Your task to perform on an android device: Go to Yahoo.com Image 0: 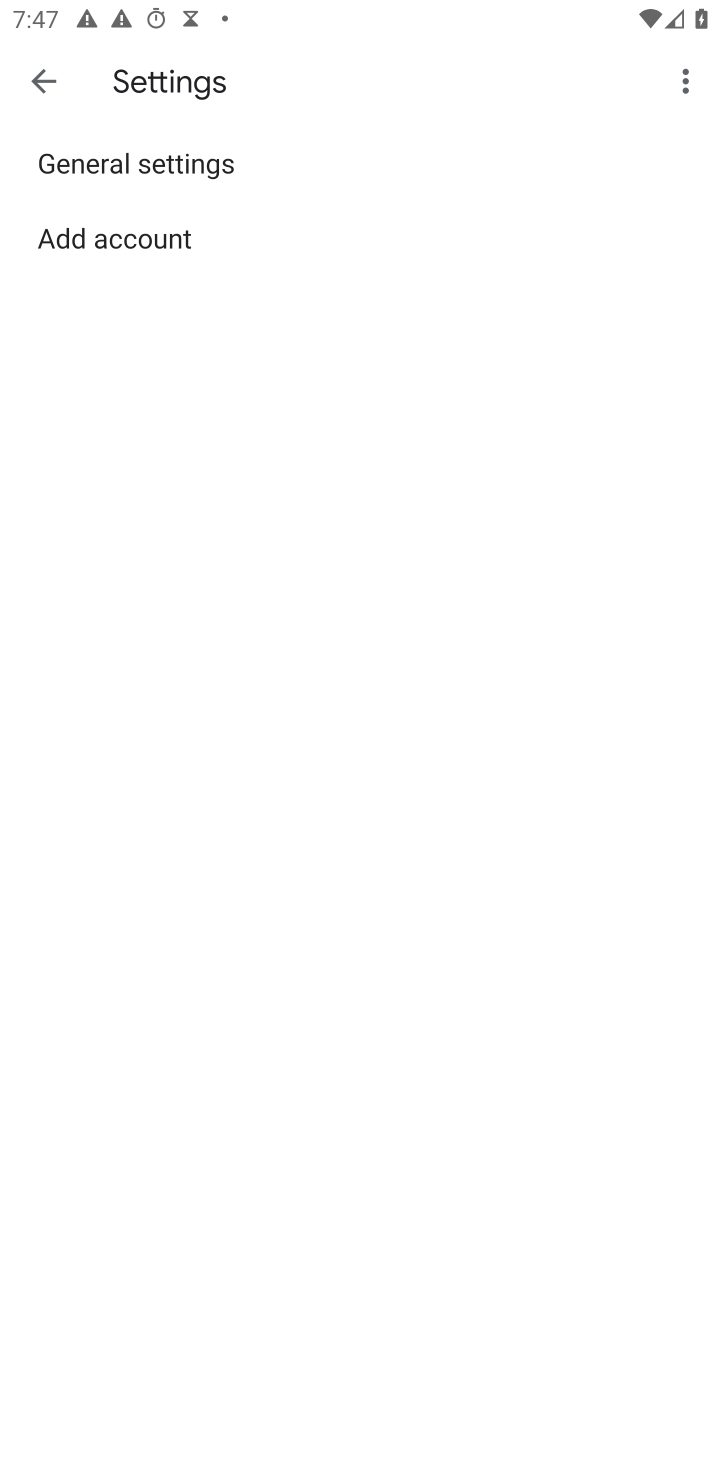
Step 0: press home button
Your task to perform on an android device: Go to Yahoo.com Image 1: 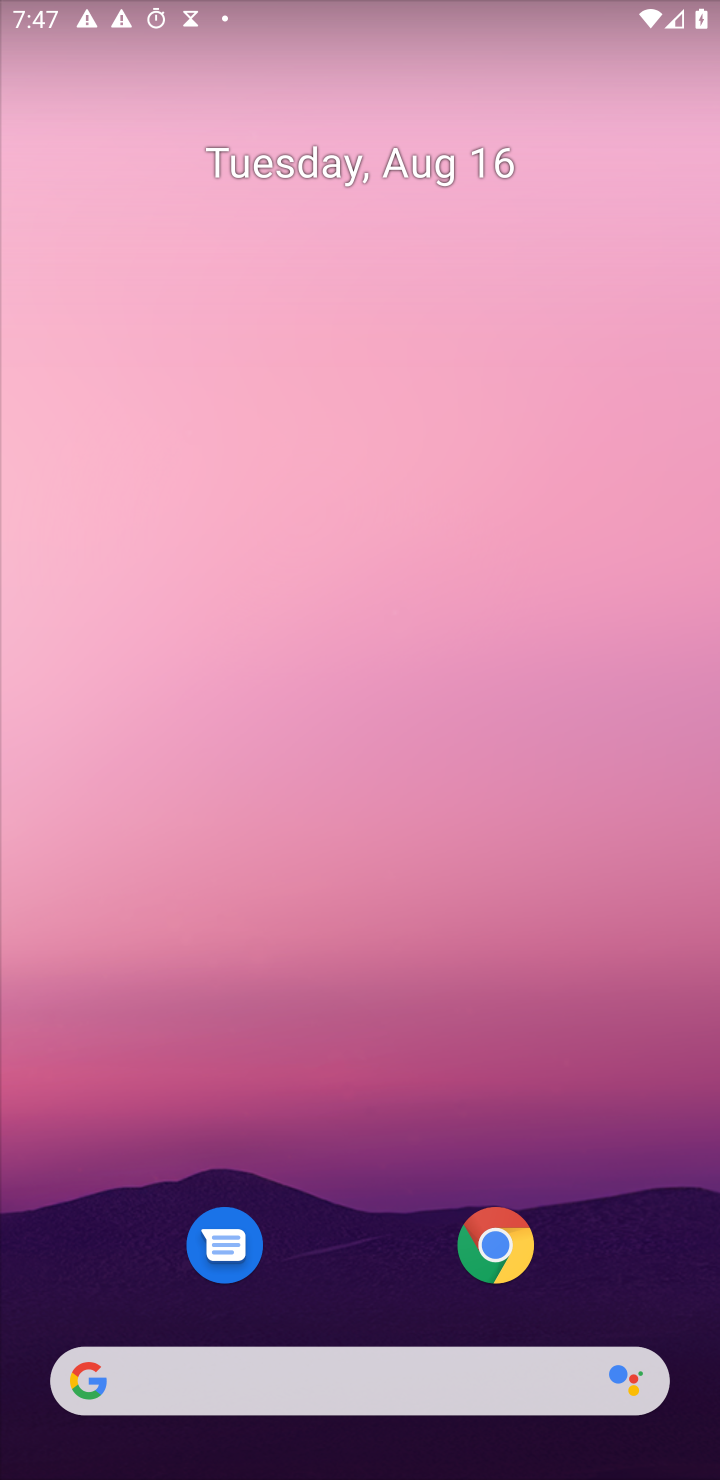
Step 1: click (88, 1381)
Your task to perform on an android device: Go to Yahoo.com Image 2: 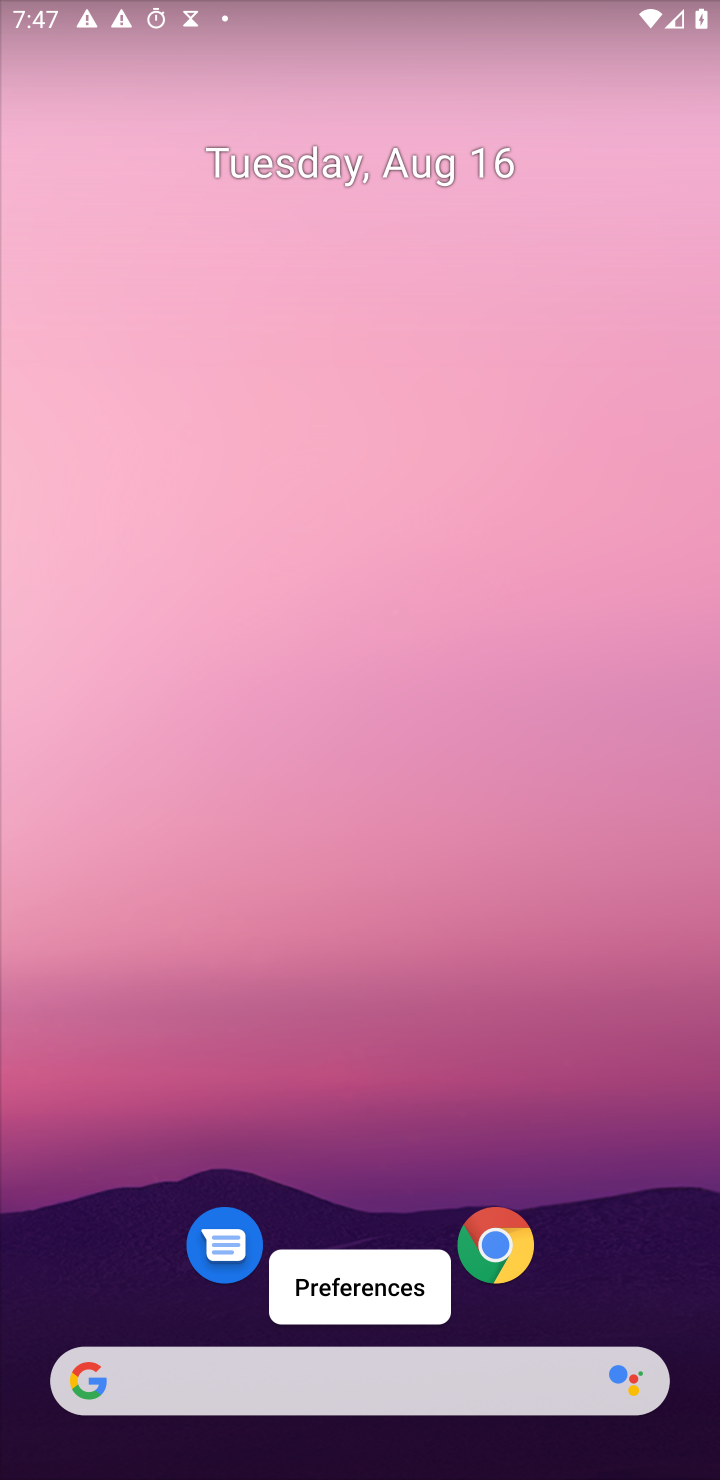
Step 2: click (81, 1378)
Your task to perform on an android device: Go to Yahoo.com Image 3: 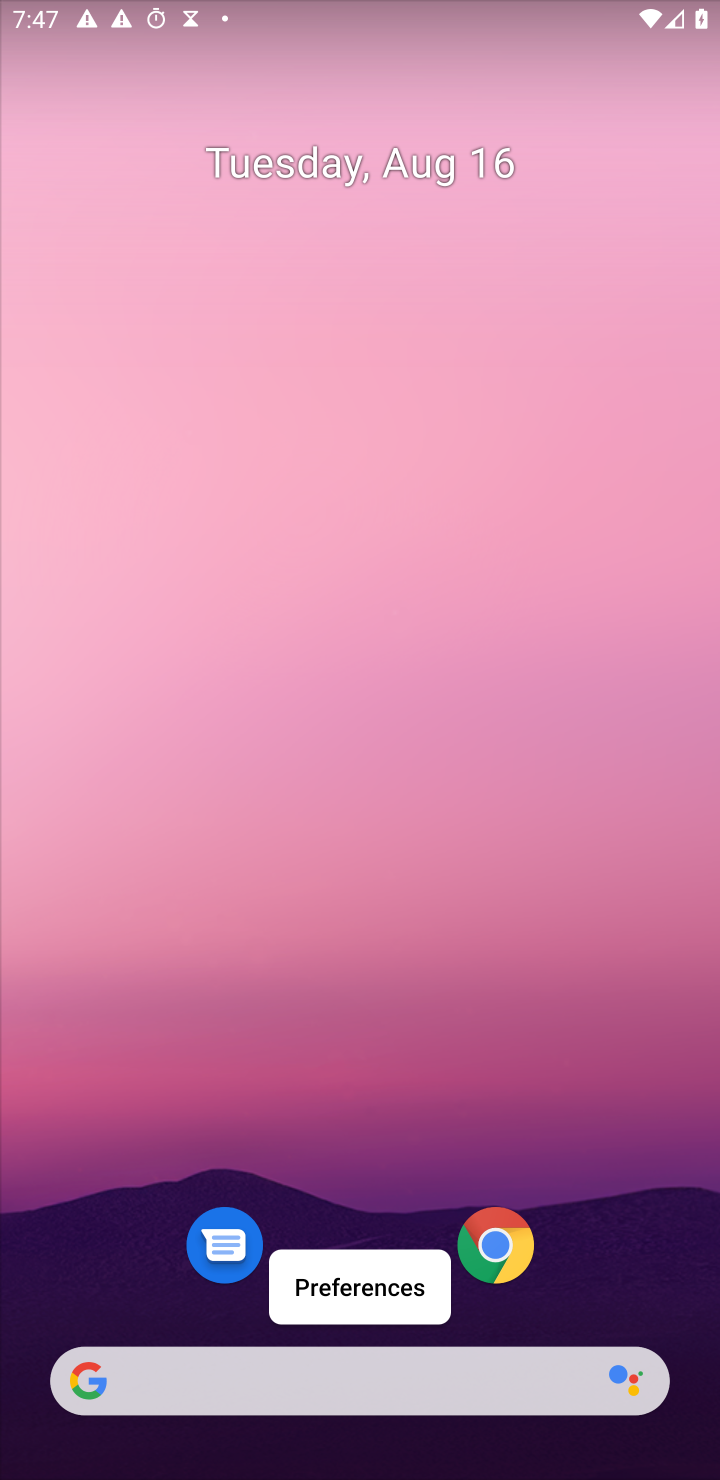
Step 3: click (85, 1390)
Your task to perform on an android device: Go to Yahoo.com Image 4: 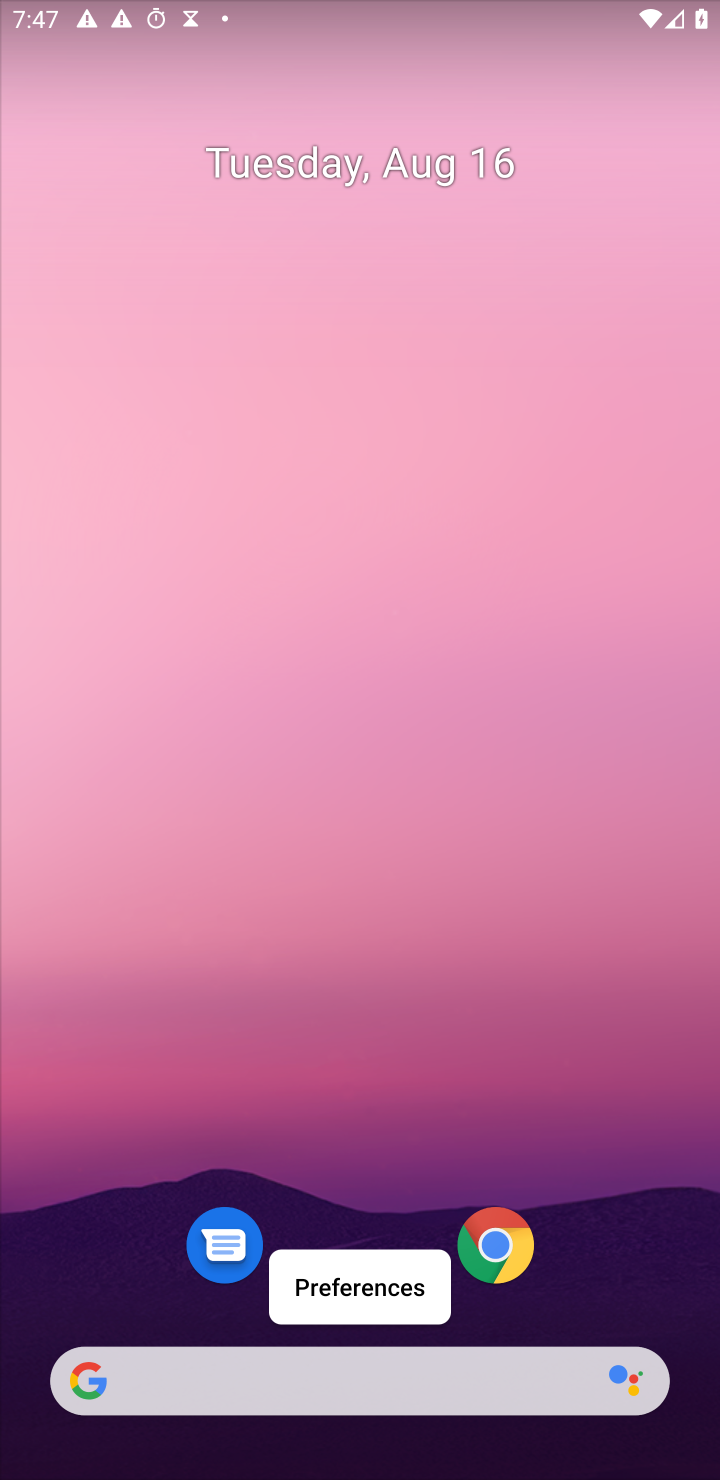
Step 4: click (85, 1388)
Your task to perform on an android device: Go to Yahoo.com Image 5: 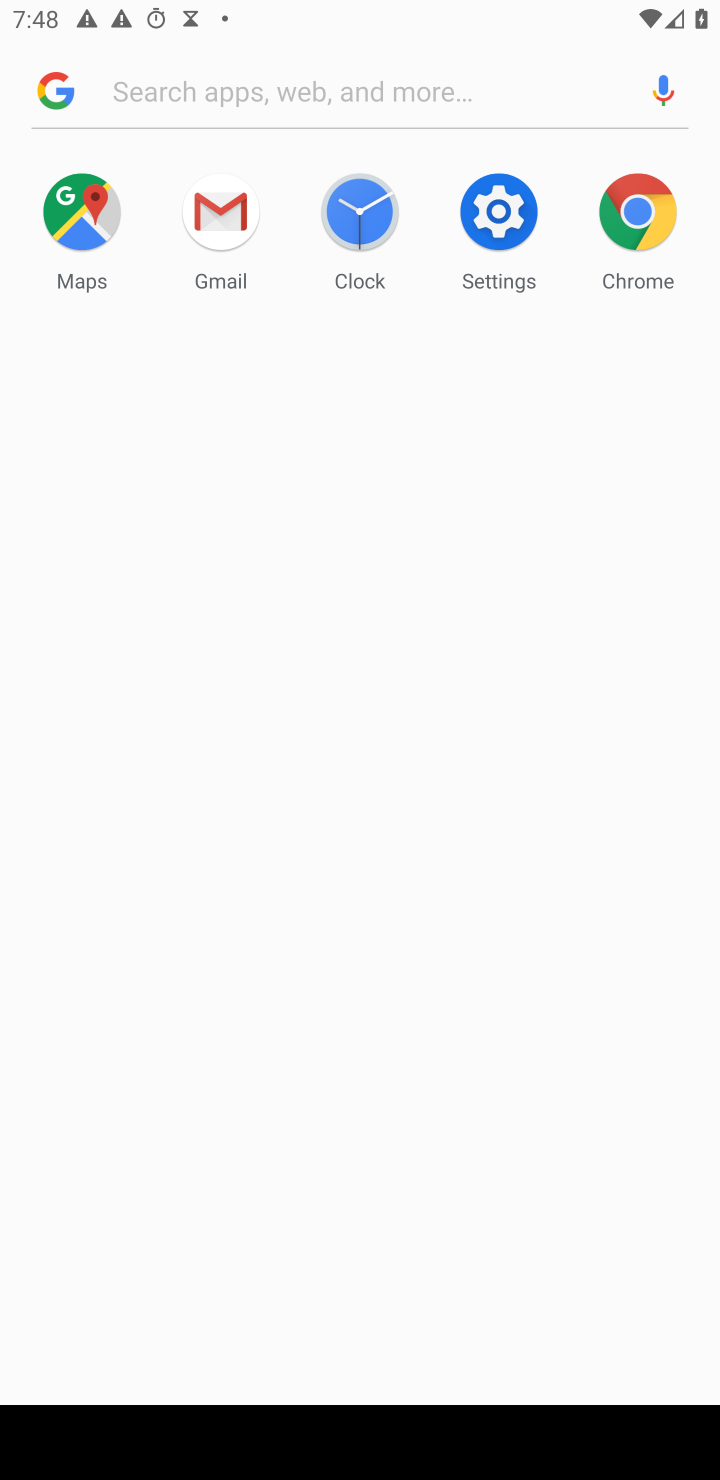
Step 5: type "Yahoo.com"
Your task to perform on an android device: Go to Yahoo.com Image 6: 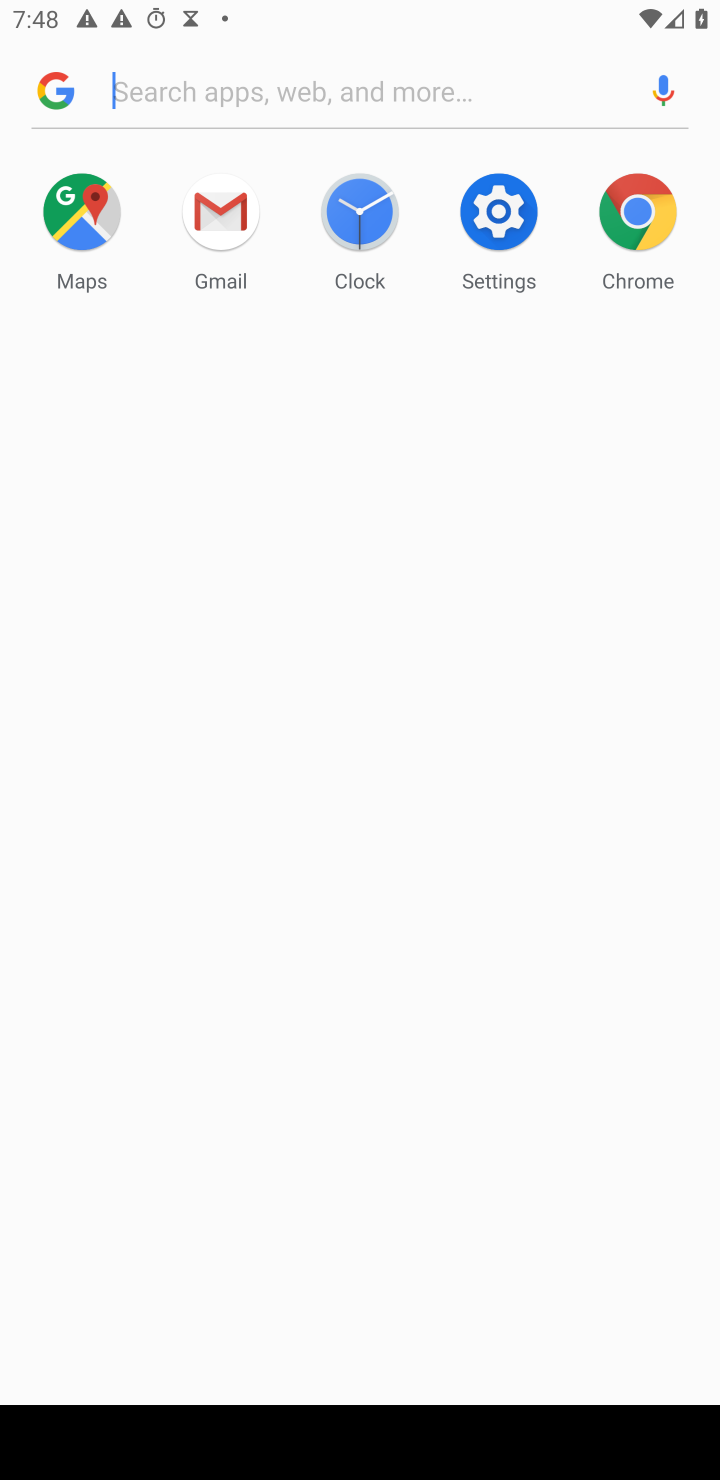
Step 6: click (139, 94)
Your task to perform on an android device: Go to Yahoo.com Image 7: 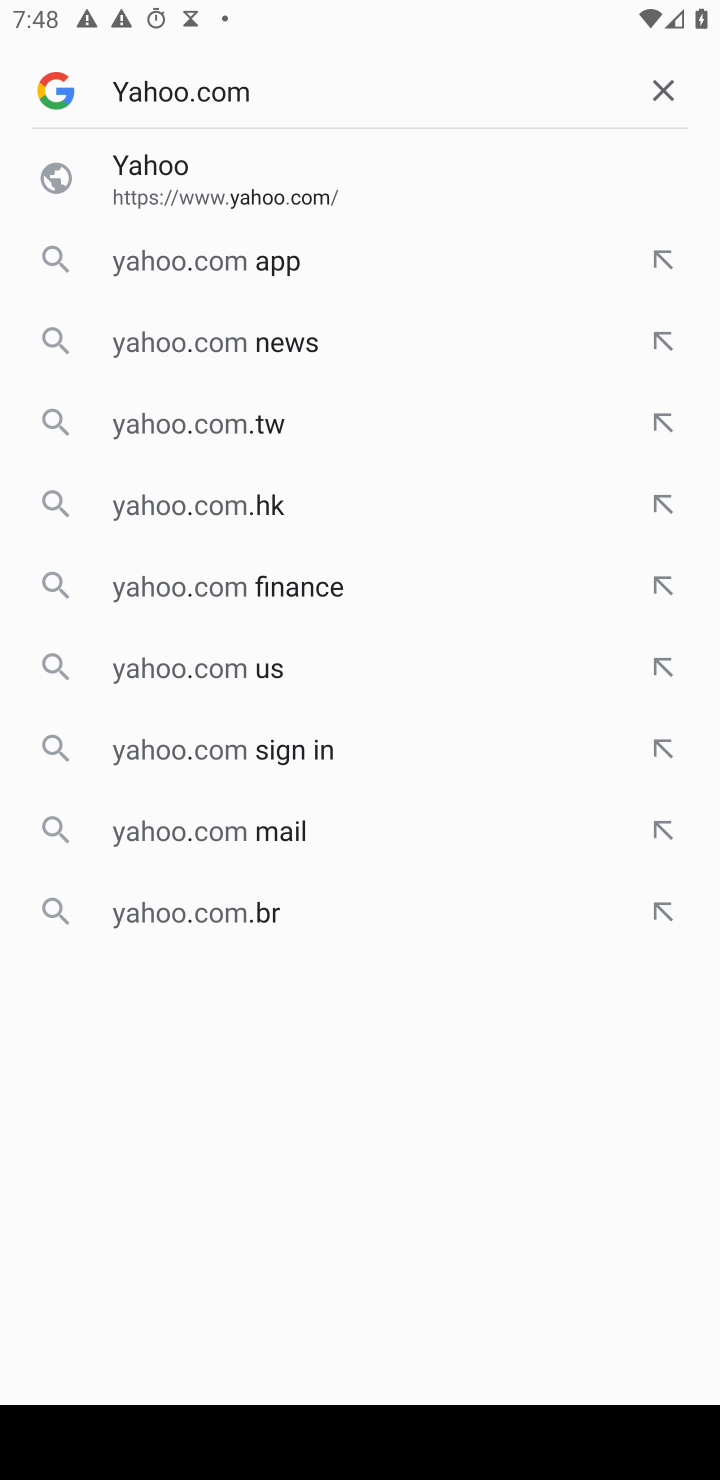
Step 7: press enter
Your task to perform on an android device: Go to Yahoo.com Image 8: 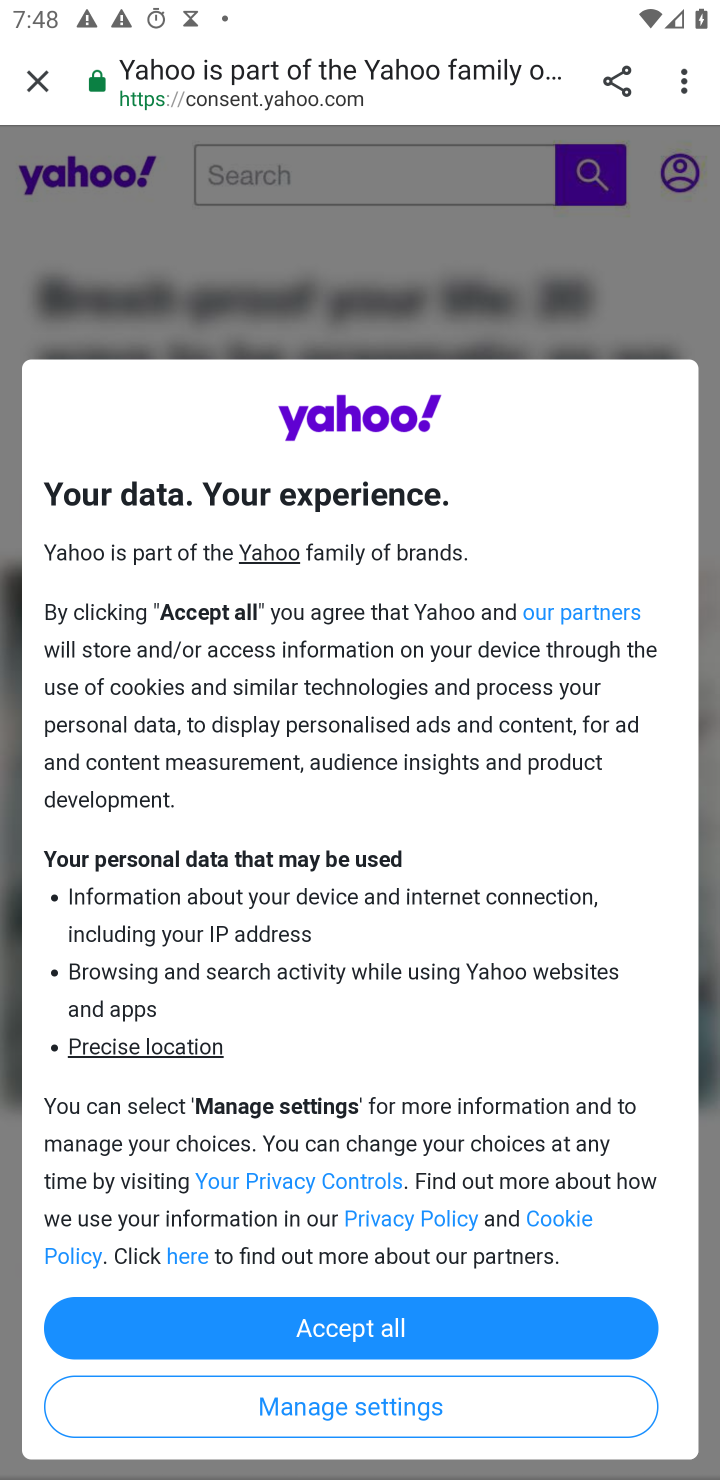
Step 8: click (364, 1334)
Your task to perform on an android device: Go to Yahoo.com Image 9: 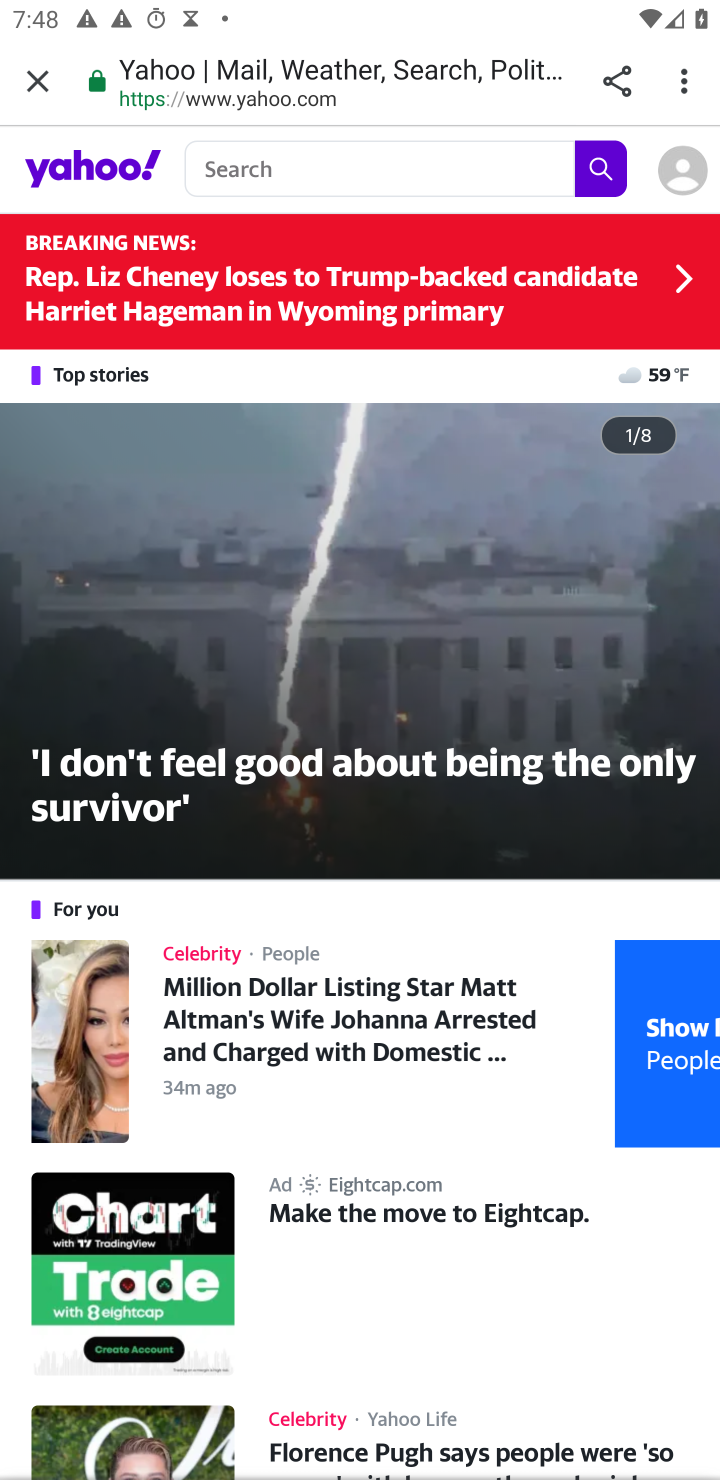
Step 9: task complete